Your task to perform on an android device: set an alarm Image 0: 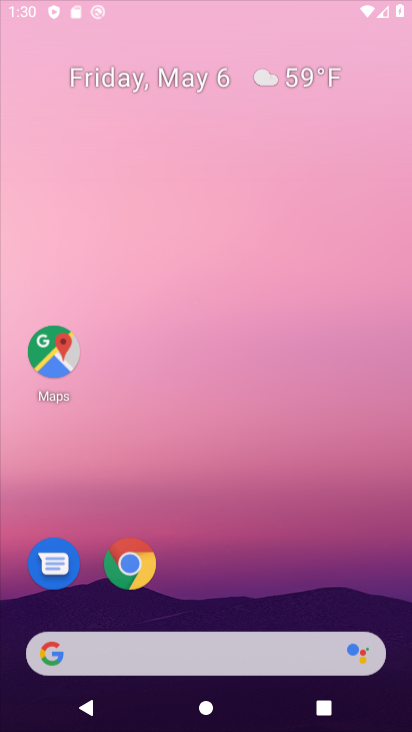
Step 0: click (140, 561)
Your task to perform on an android device: set an alarm Image 1: 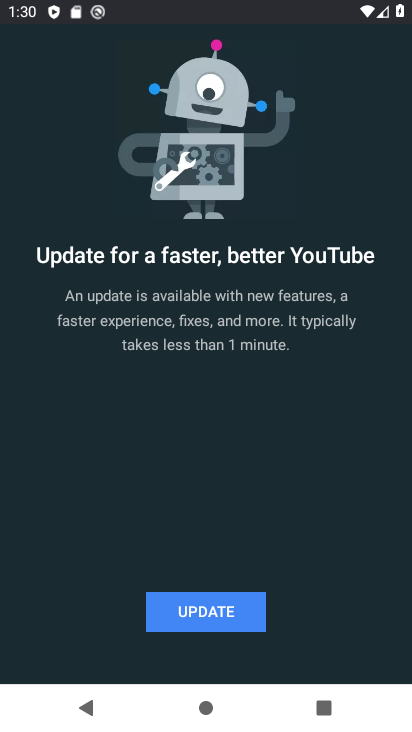
Step 1: press back button
Your task to perform on an android device: set an alarm Image 2: 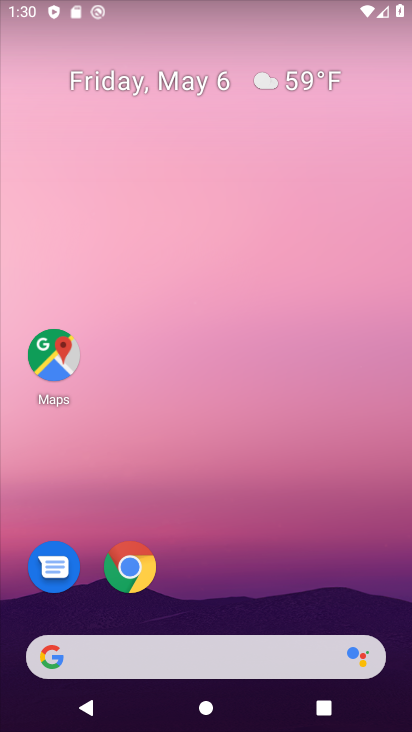
Step 2: drag from (292, 623) to (198, 65)
Your task to perform on an android device: set an alarm Image 3: 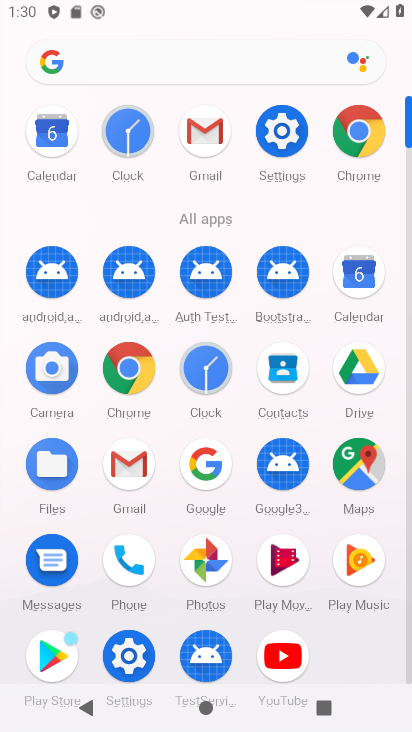
Step 3: click (129, 129)
Your task to perform on an android device: set an alarm Image 4: 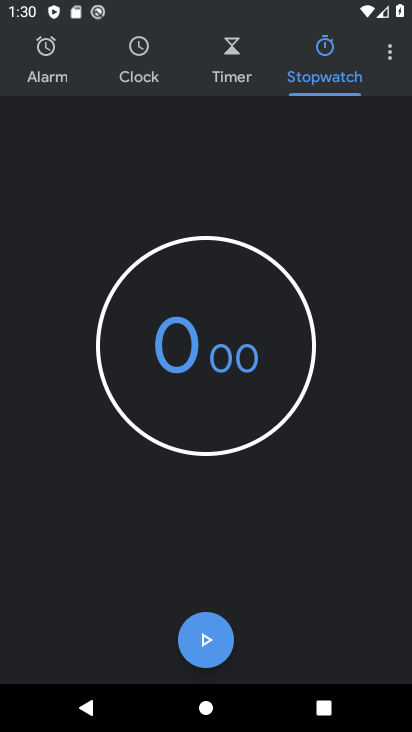
Step 4: click (62, 59)
Your task to perform on an android device: set an alarm Image 5: 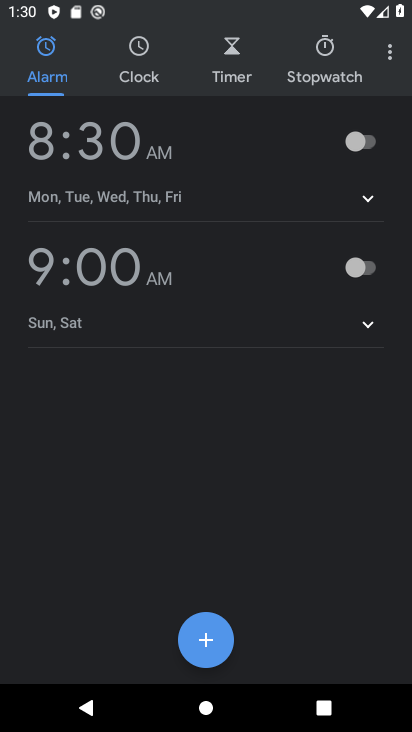
Step 5: click (213, 632)
Your task to perform on an android device: set an alarm Image 6: 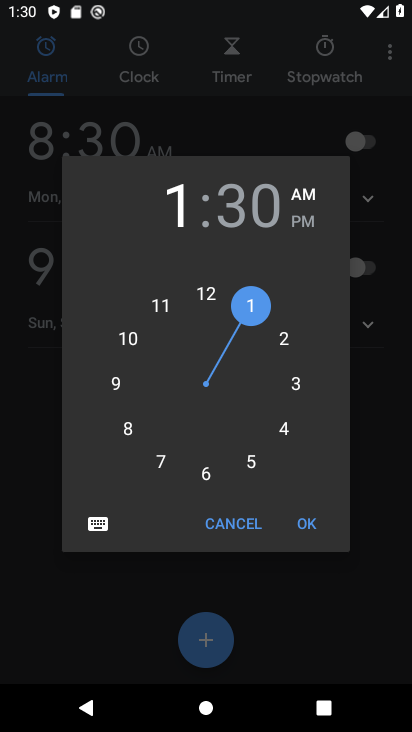
Step 6: click (306, 529)
Your task to perform on an android device: set an alarm Image 7: 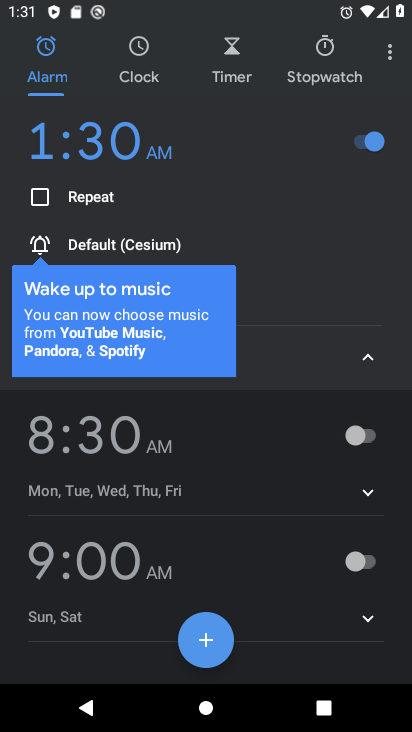
Step 7: task complete